Your task to perform on an android device: open the mobile data screen to see how much data has been used Image 0: 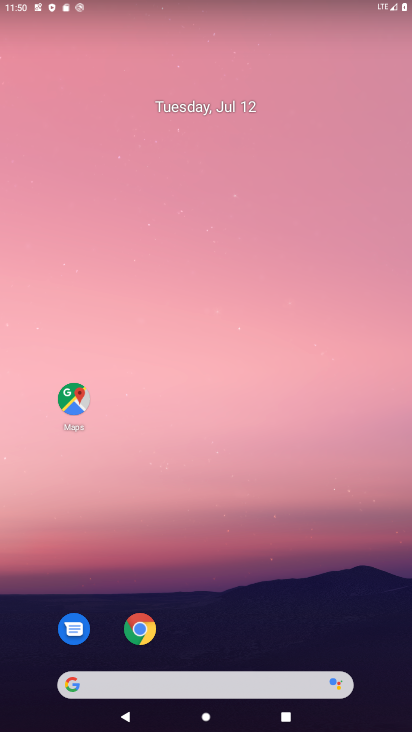
Step 0: press home button
Your task to perform on an android device: open the mobile data screen to see how much data has been used Image 1: 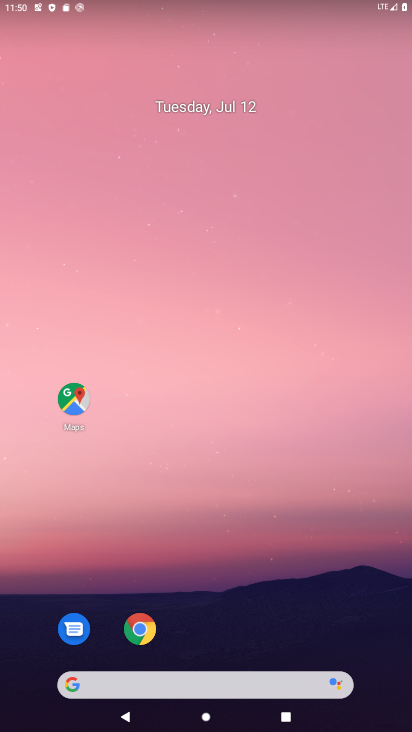
Step 1: drag from (219, 657) to (221, 42)
Your task to perform on an android device: open the mobile data screen to see how much data has been used Image 2: 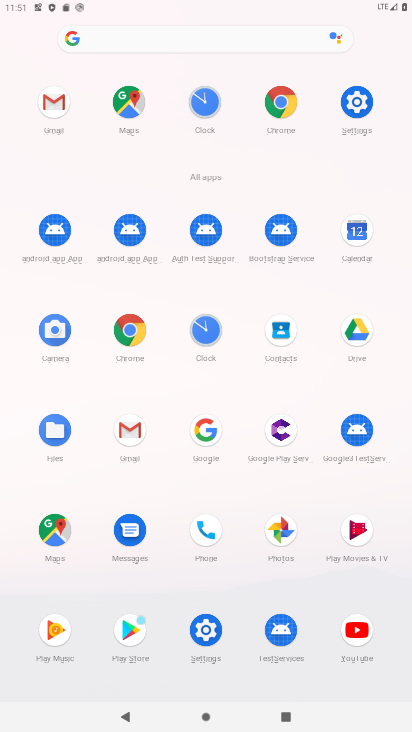
Step 2: click (357, 97)
Your task to perform on an android device: open the mobile data screen to see how much data has been used Image 3: 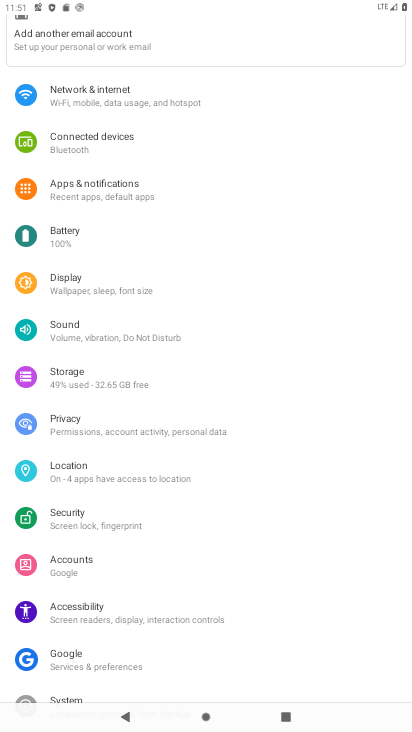
Step 3: click (97, 85)
Your task to perform on an android device: open the mobile data screen to see how much data has been used Image 4: 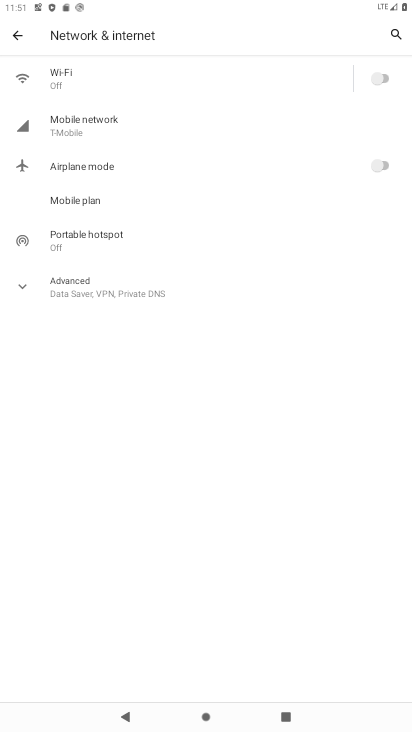
Step 4: click (110, 131)
Your task to perform on an android device: open the mobile data screen to see how much data has been used Image 5: 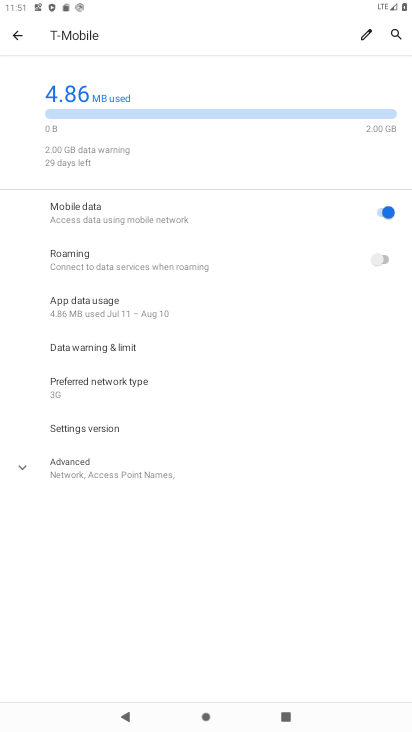
Step 5: click (117, 305)
Your task to perform on an android device: open the mobile data screen to see how much data has been used Image 6: 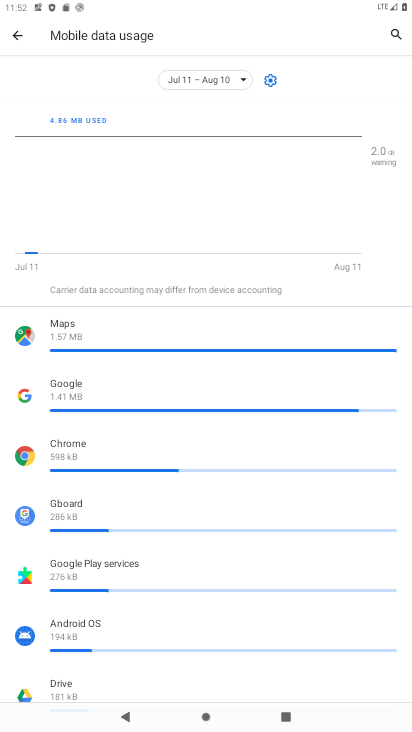
Step 6: task complete